Your task to perform on an android device: Go to sound settings Image 0: 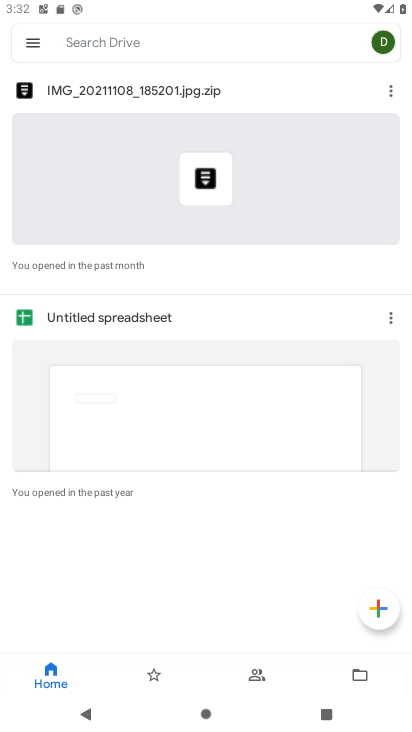
Step 0: press home button
Your task to perform on an android device: Go to sound settings Image 1: 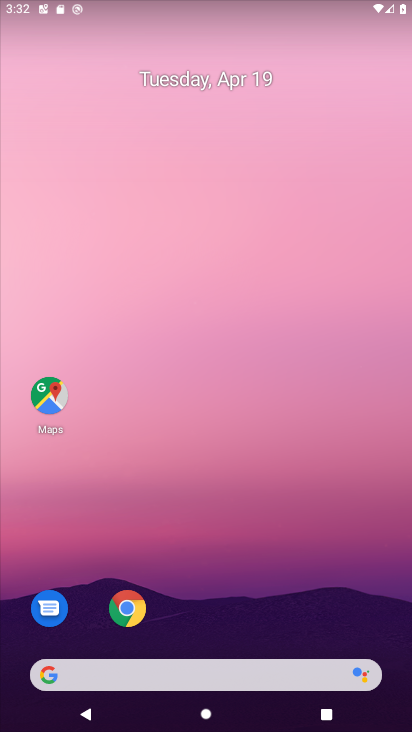
Step 1: drag from (268, 577) to (290, 66)
Your task to perform on an android device: Go to sound settings Image 2: 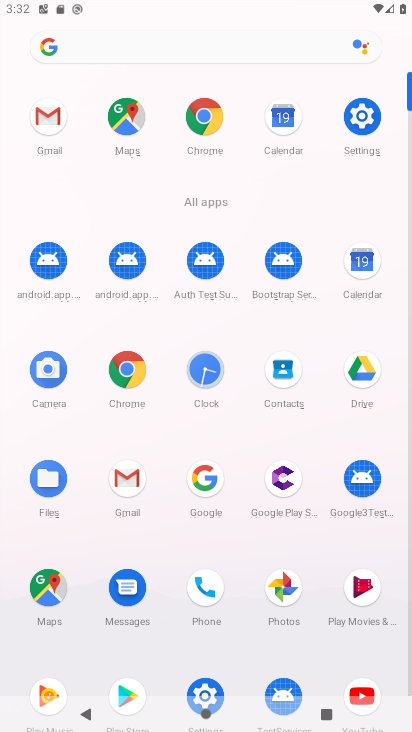
Step 2: click (365, 117)
Your task to perform on an android device: Go to sound settings Image 3: 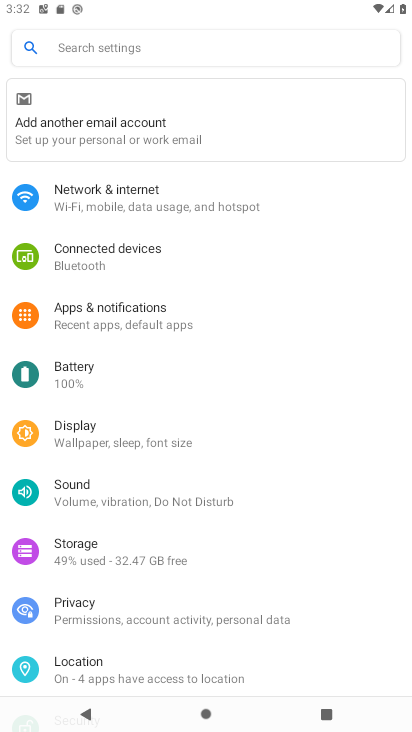
Step 3: click (86, 493)
Your task to perform on an android device: Go to sound settings Image 4: 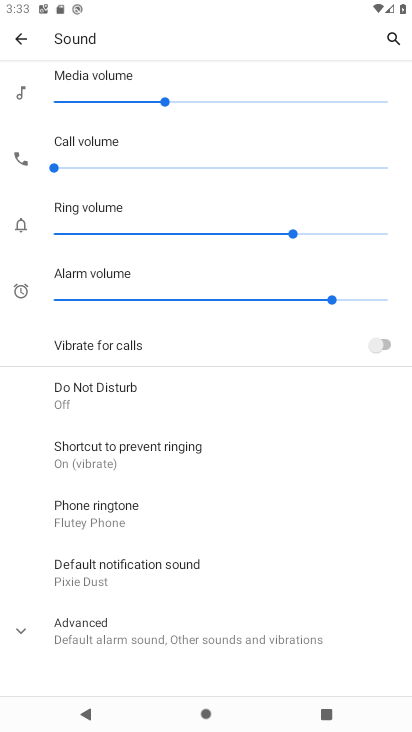
Step 4: task complete